Your task to perform on an android device: Open the calendar app, open the side menu, and click the "Day" option Image 0: 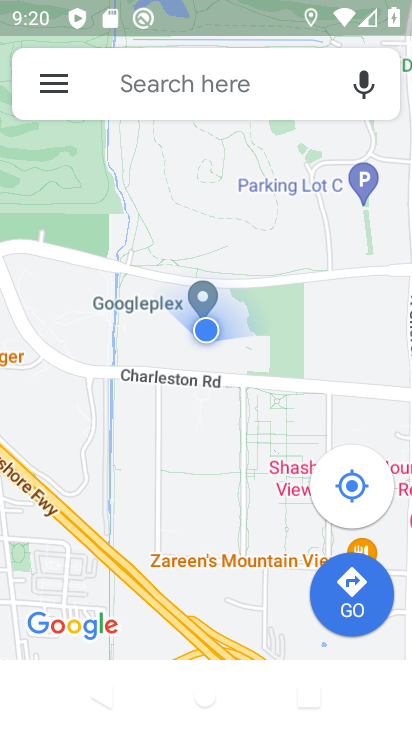
Step 0: click (38, 81)
Your task to perform on an android device: Open the calendar app, open the side menu, and click the "Day" option Image 1: 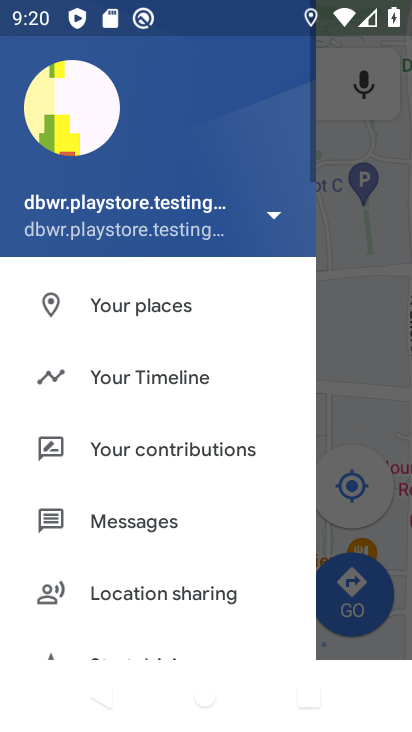
Step 1: press home button
Your task to perform on an android device: Open the calendar app, open the side menu, and click the "Day" option Image 2: 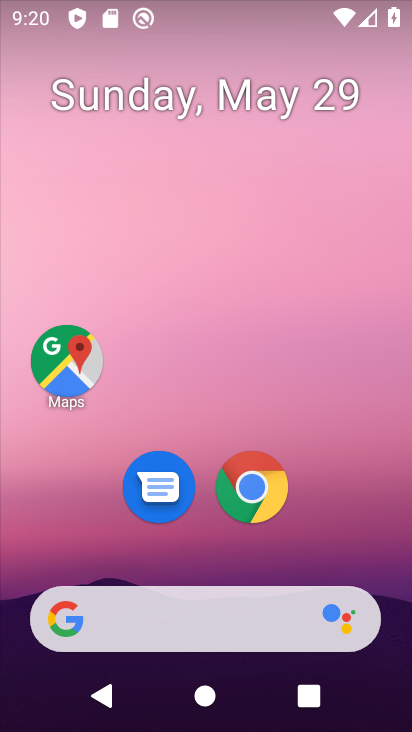
Step 2: drag from (384, 677) to (356, 181)
Your task to perform on an android device: Open the calendar app, open the side menu, and click the "Day" option Image 3: 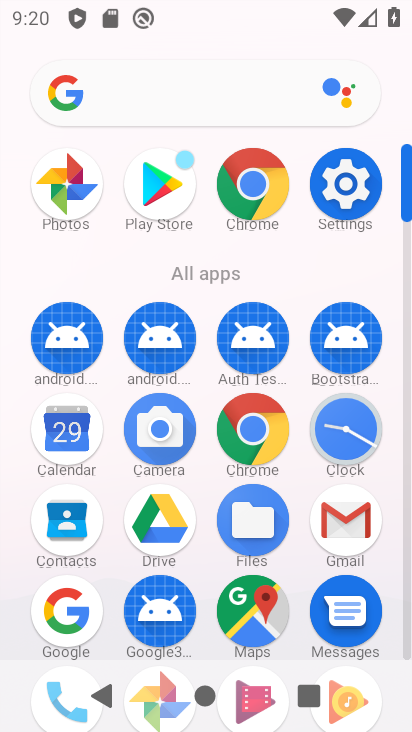
Step 3: click (49, 448)
Your task to perform on an android device: Open the calendar app, open the side menu, and click the "Day" option Image 4: 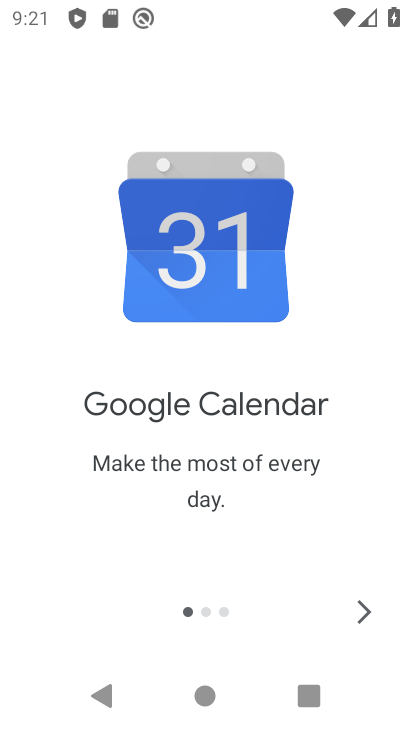
Step 4: click (355, 616)
Your task to perform on an android device: Open the calendar app, open the side menu, and click the "Day" option Image 5: 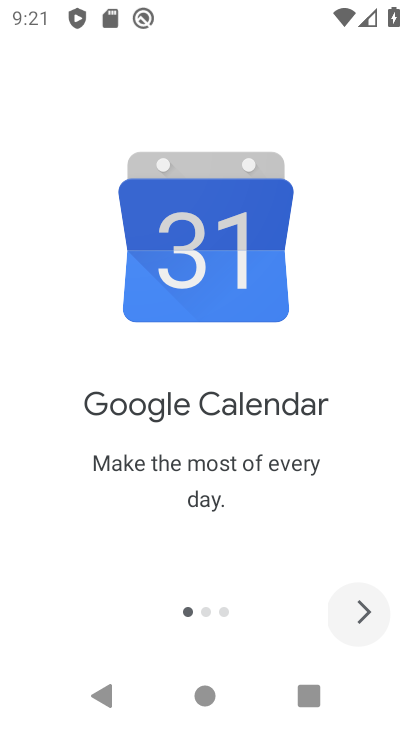
Step 5: click (355, 616)
Your task to perform on an android device: Open the calendar app, open the side menu, and click the "Day" option Image 6: 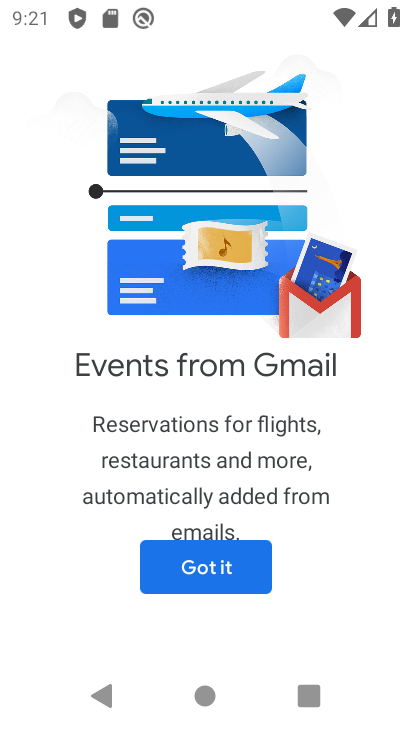
Step 6: click (246, 574)
Your task to perform on an android device: Open the calendar app, open the side menu, and click the "Day" option Image 7: 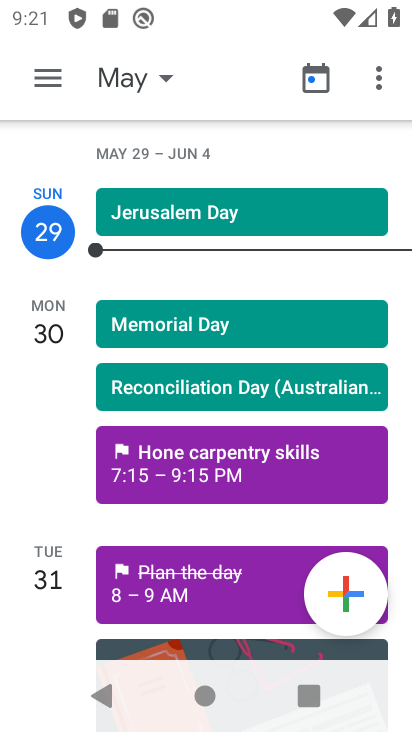
Step 7: click (31, 65)
Your task to perform on an android device: Open the calendar app, open the side menu, and click the "Day" option Image 8: 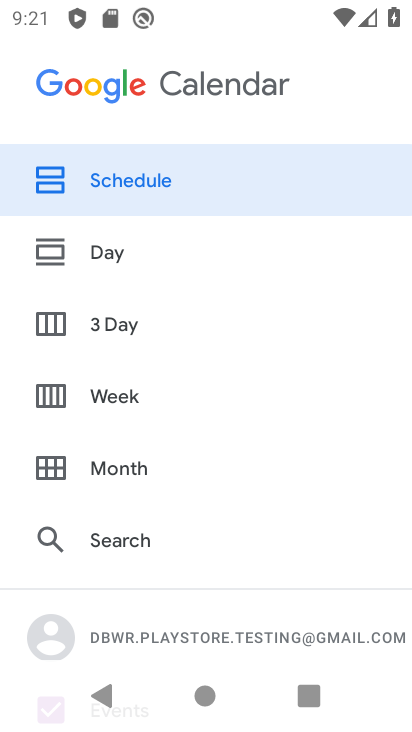
Step 8: click (95, 246)
Your task to perform on an android device: Open the calendar app, open the side menu, and click the "Day" option Image 9: 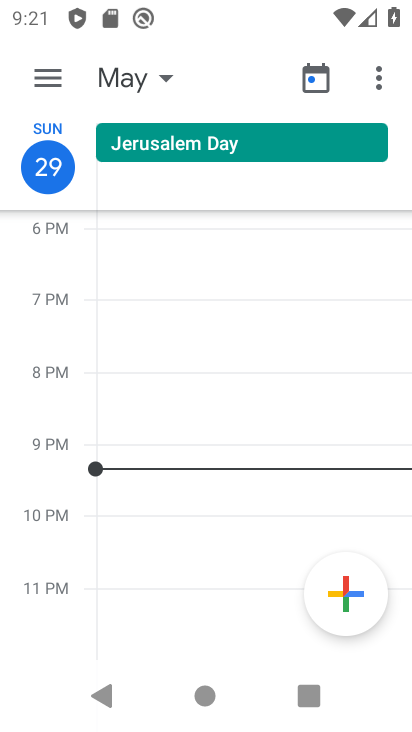
Step 9: task complete